Your task to perform on an android device: Clear the shopping cart on target. Search for "logitech g910" on target, select the first entry, add it to the cart, then select checkout. Image 0: 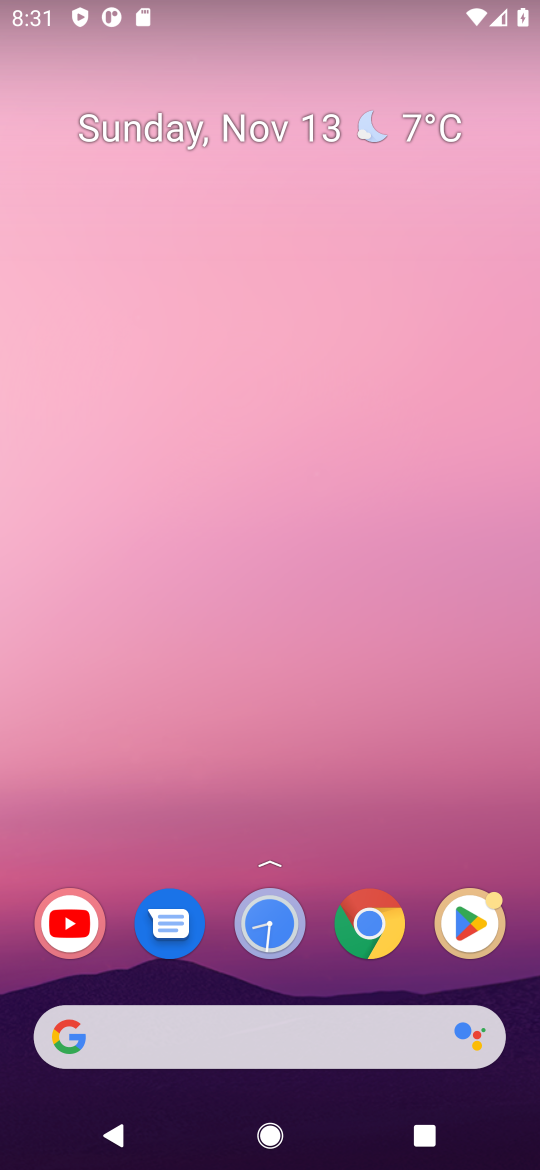
Step 0: click (364, 924)
Your task to perform on an android device: Clear the shopping cart on target. Search for "logitech g910" on target, select the first entry, add it to the cart, then select checkout. Image 1: 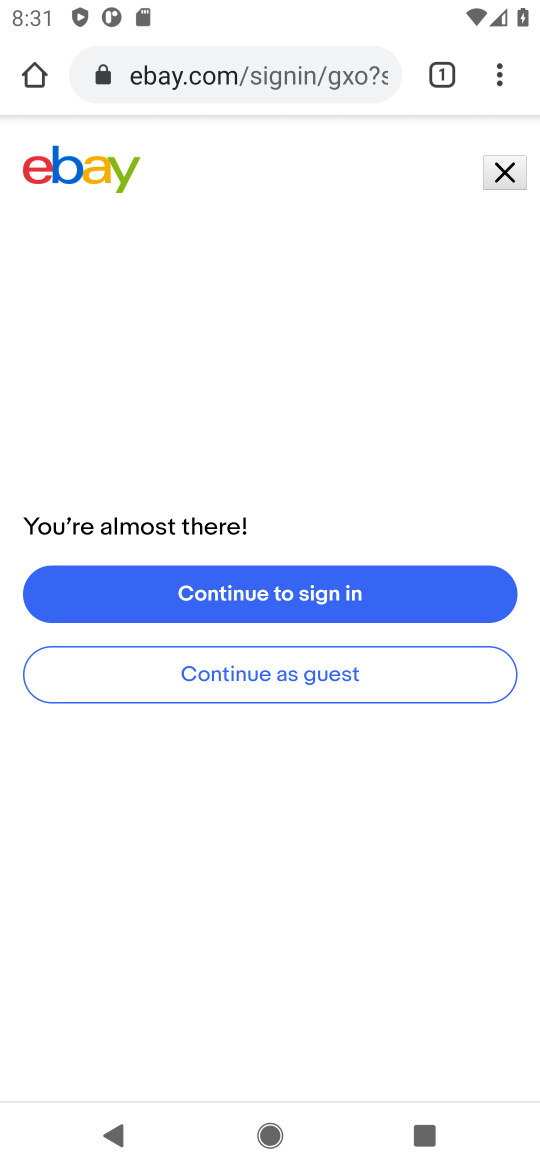
Step 1: click (163, 81)
Your task to perform on an android device: Clear the shopping cart on target. Search for "logitech g910" on target, select the first entry, add it to the cart, then select checkout. Image 2: 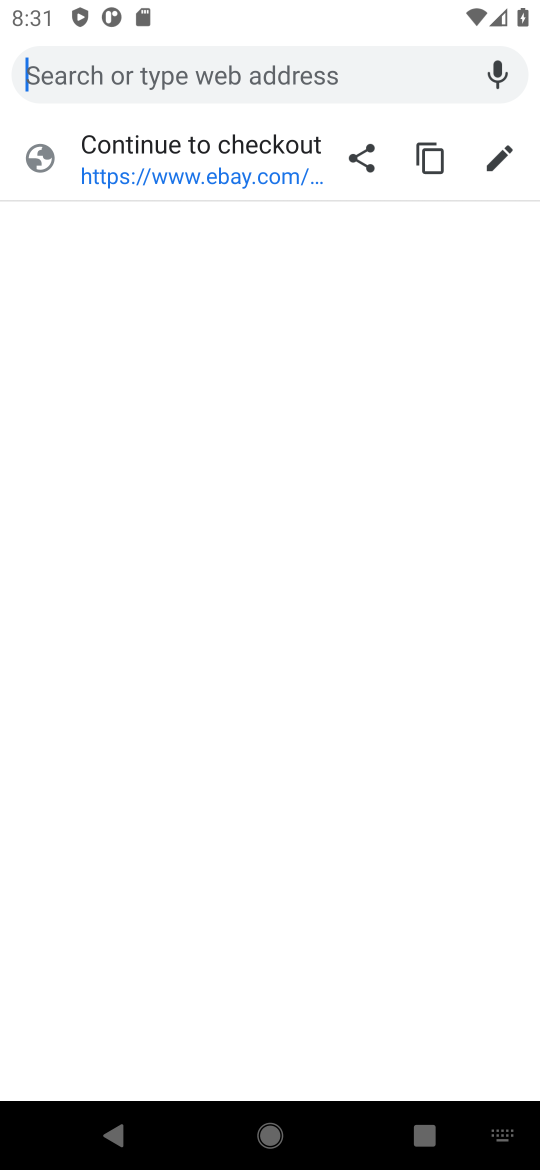
Step 2: type "target"
Your task to perform on an android device: Clear the shopping cart on target. Search for "logitech g910" on target, select the first entry, add it to the cart, then select checkout. Image 3: 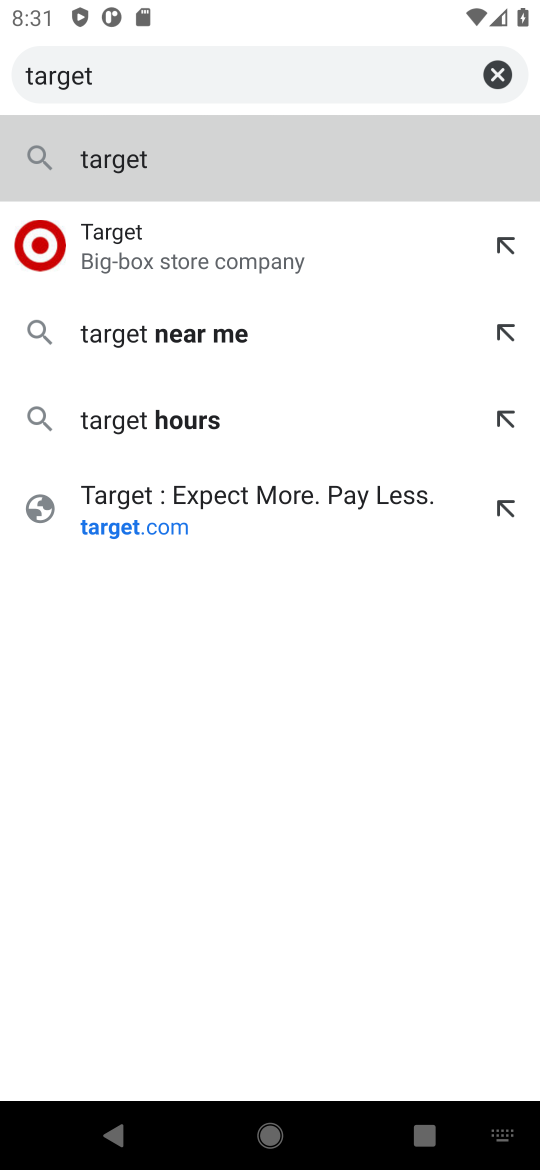
Step 3: press enter
Your task to perform on an android device: Clear the shopping cart on target. Search for "logitech g910" on target, select the first entry, add it to the cart, then select checkout. Image 4: 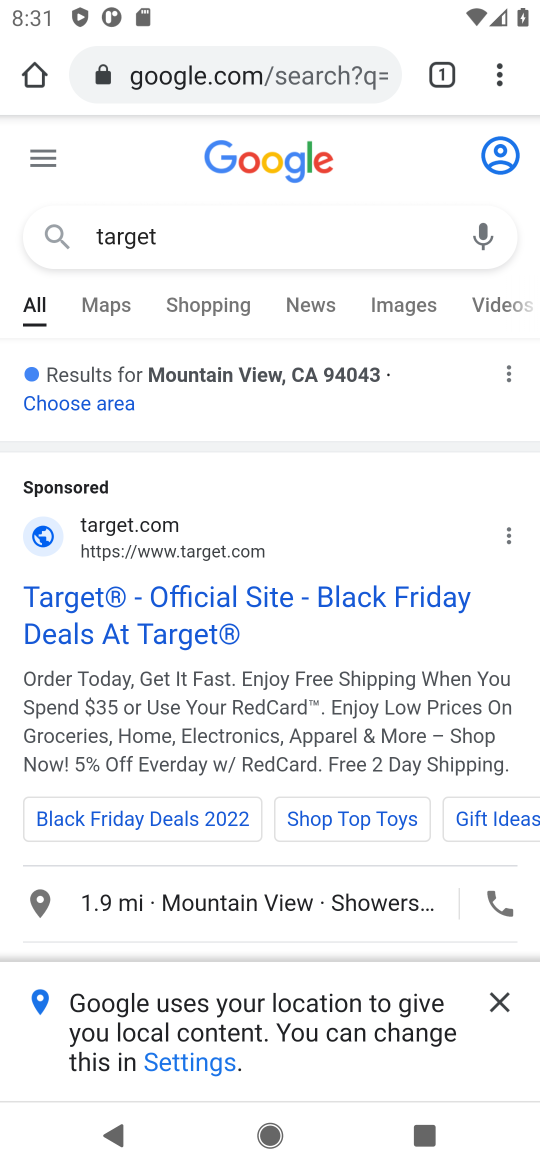
Step 4: click (163, 627)
Your task to perform on an android device: Clear the shopping cart on target. Search for "logitech g910" on target, select the first entry, add it to the cart, then select checkout. Image 5: 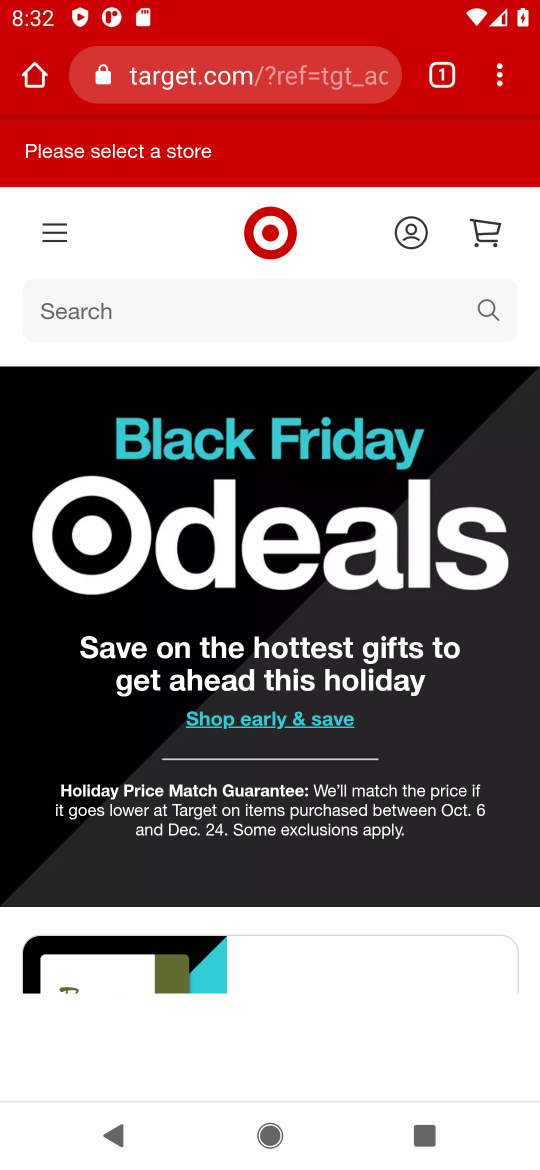
Step 5: click (234, 322)
Your task to perform on an android device: Clear the shopping cart on target. Search for "logitech g910" on target, select the first entry, add it to the cart, then select checkout. Image 6: 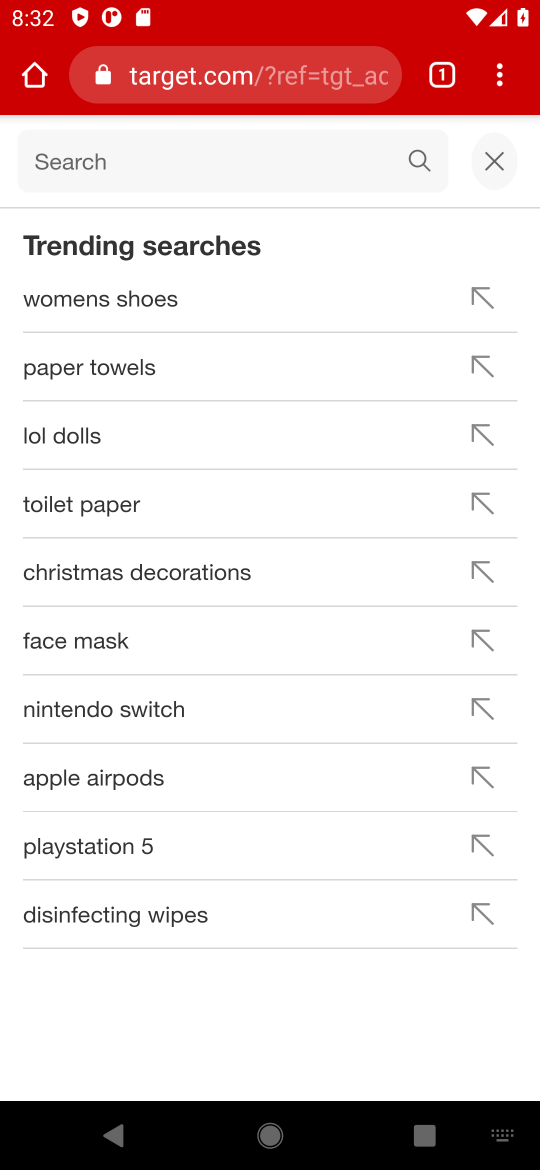
Step 6: type "logitech g910"
Your task to perform on an android device: Clear the shopping cart on target. Search for "logitech g910" on target, select the first entry, add it to the cart, then select checkout. Image 7: 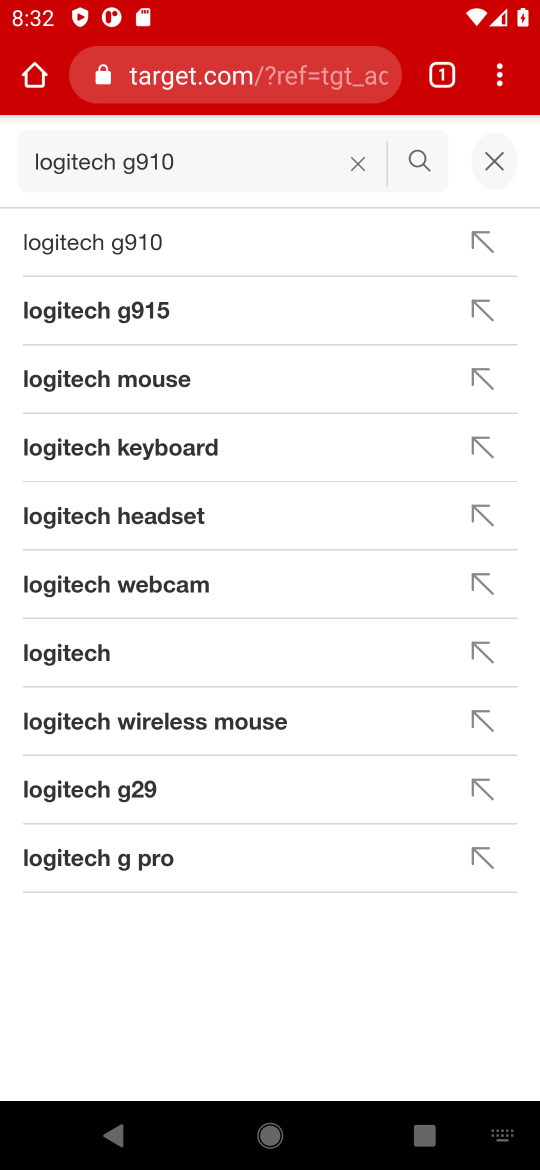
Step 7: press enter
Your task to perform on an android device: Clear the shopping cart on target. Search for "logitech g910" on target, select the first entry, add it to the cart, then select checkout. Image 8: 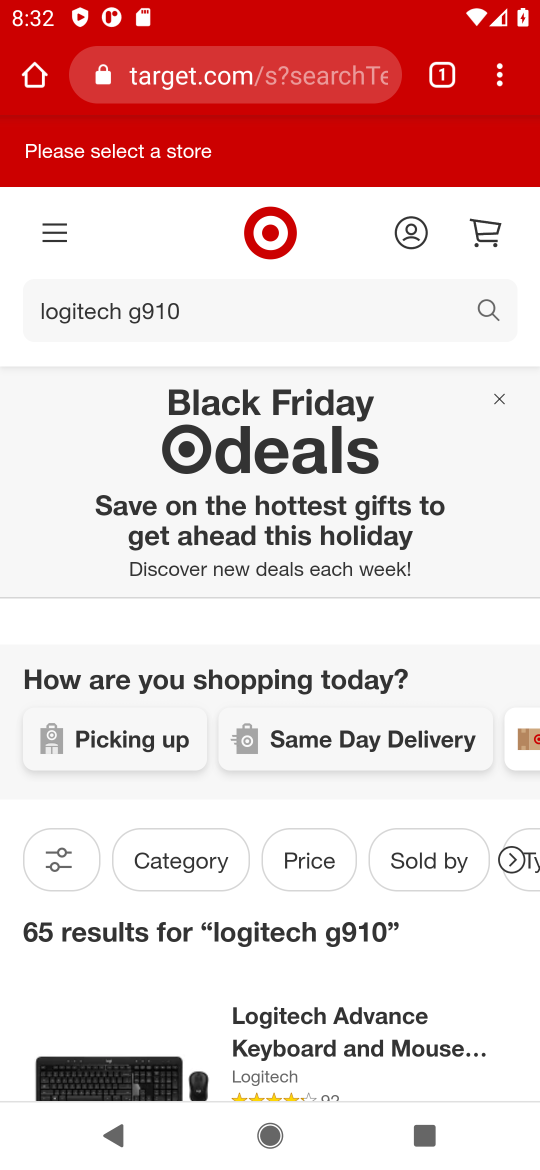
Step 8: drag from (350, 1037) to (367, 519)
Your task to perform on an android device: Clear the shopping cart on target. Search for "logitech g910" on target, select the first entry, add it to the cart, then select checkout. Image 9: 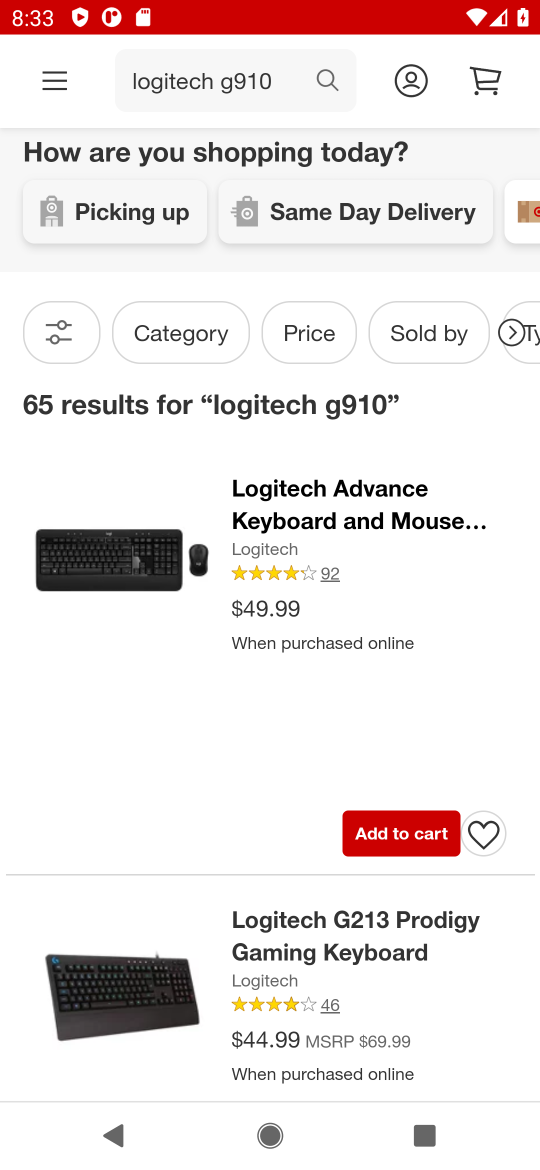
Step 9: click (118, 542)
Your task to perform on an android device: Clear the shopping cart on target. Search for "logitech g910" on target, select the first entry, add it to the cart, then select checkout. Image 10: 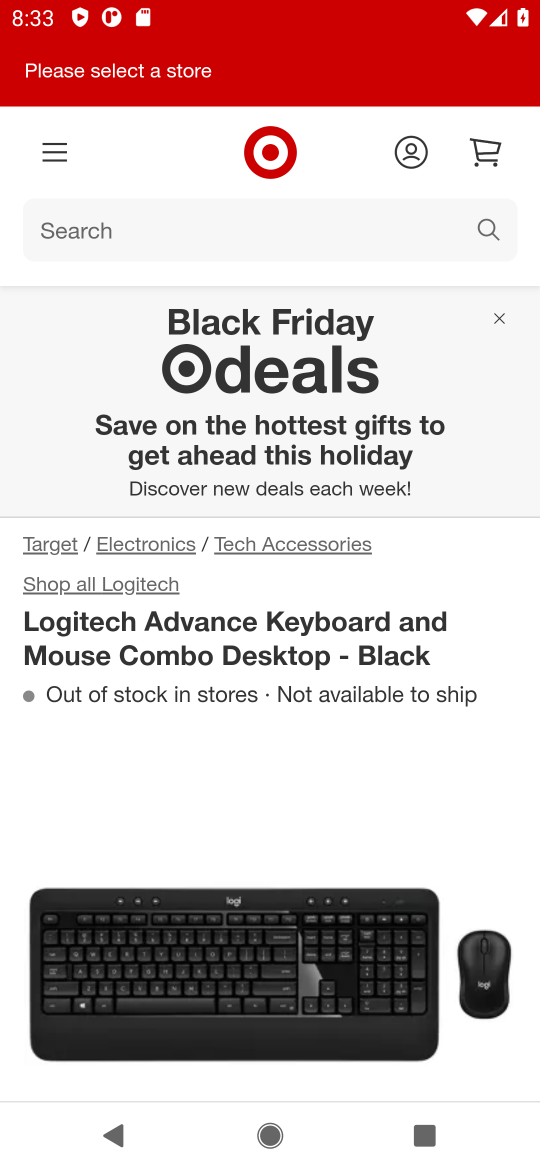
Step 10: drag from (347, 807) to (341, 430)
Your task to perform on an android device: Clear the shopping cart on target. Search for "logitech g910" on target, select the first entry, add it to the cart, then select checkout. Image 11: 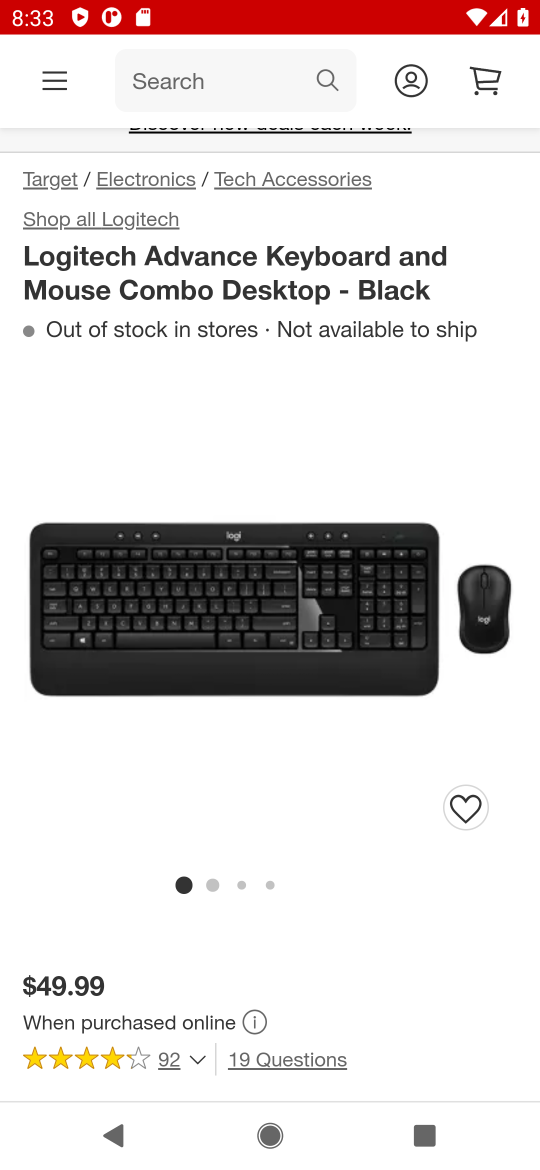
Step 11: drag from (379, 806) to (395, 446)
Your task to perform on an android device: Clear the shopping cart on target. Search for "logitech g910" on target, select the first entry, add it to the cart, then select checkout. Image 12: 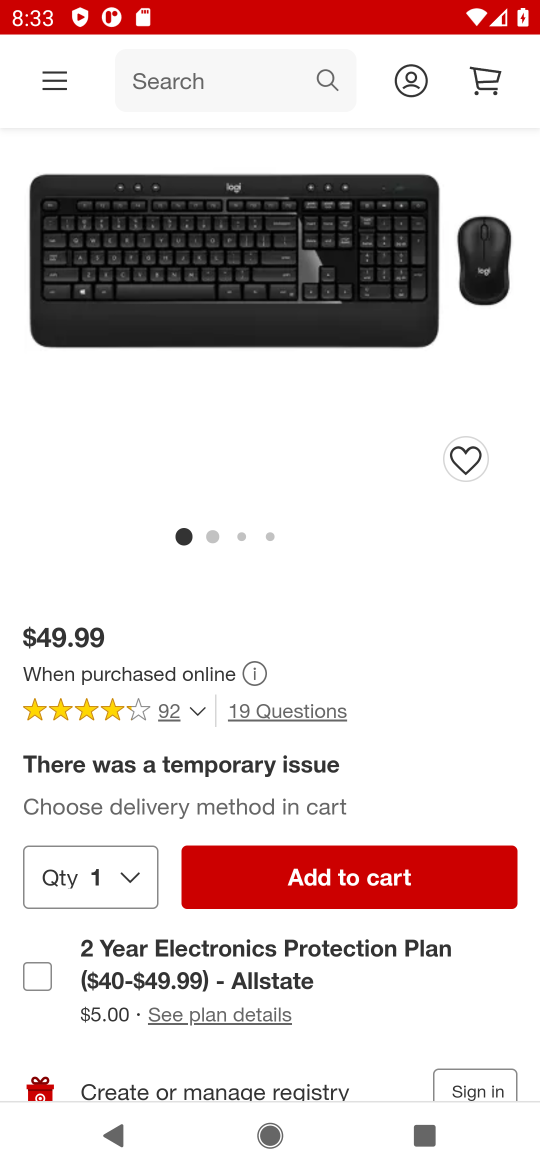
Step 12: click (383, 883)
Your task to perform on an android device: Clear the shopping cart on target. Search for "logitech g910" on target, select the first entry, add it to the cart, then select checkout. Image 13: 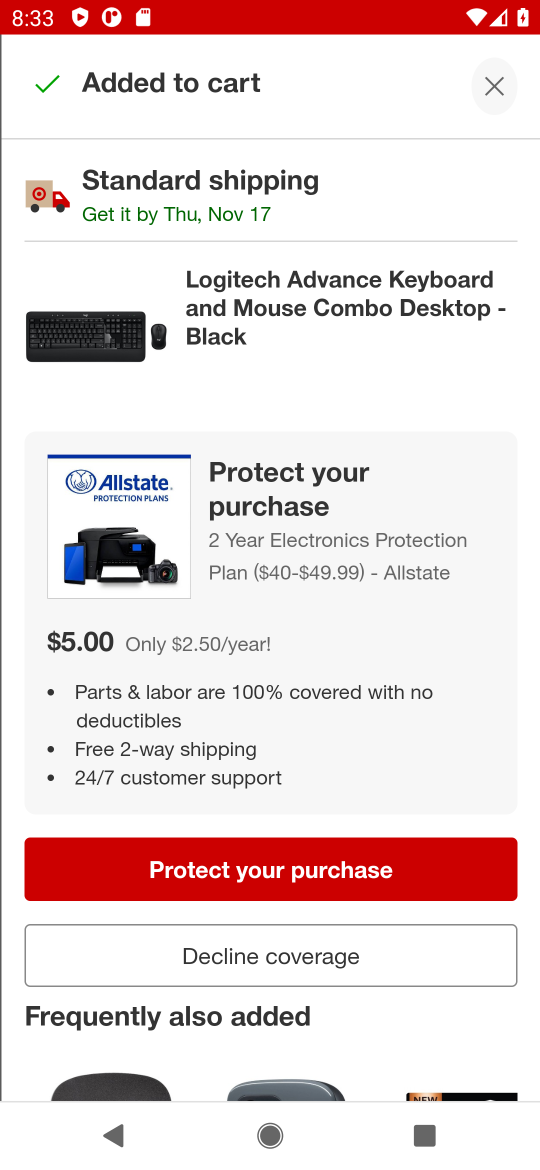
Step 13: click (285, 864)
Your task to perform on an android device: Clear the shopping cart on target. Search for "logitech g910" on target, select the first entry, add it to the cart, then select checkout. Image 14: 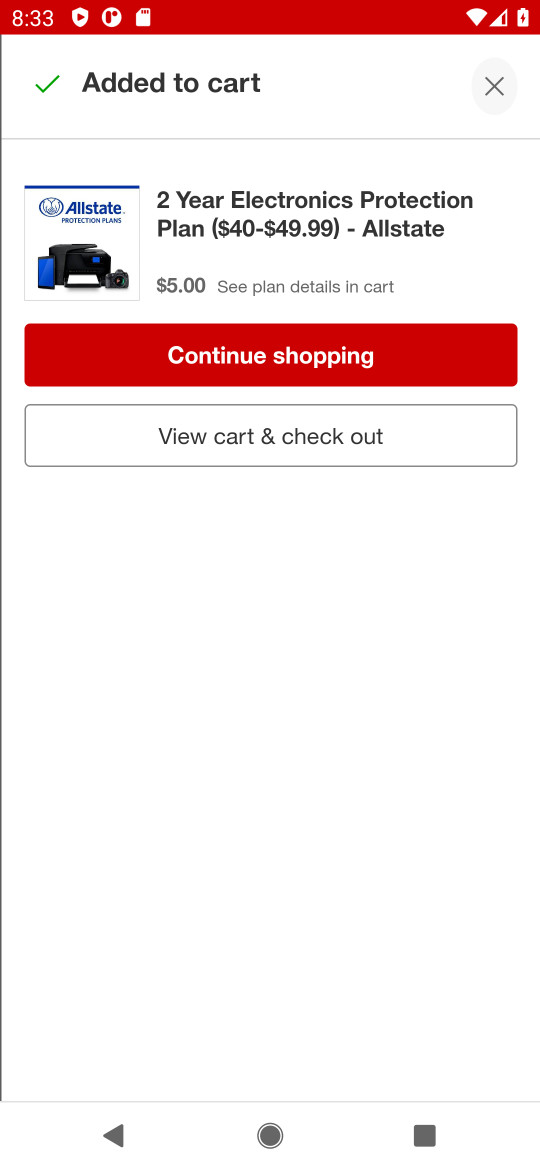
Step 14: click (231, 442)
Your task to perform on an android device: Clear the shopping cart on target. Search for "logitech g910" on target, select the first entry, add it to the cart, then select checkout. Image 15: 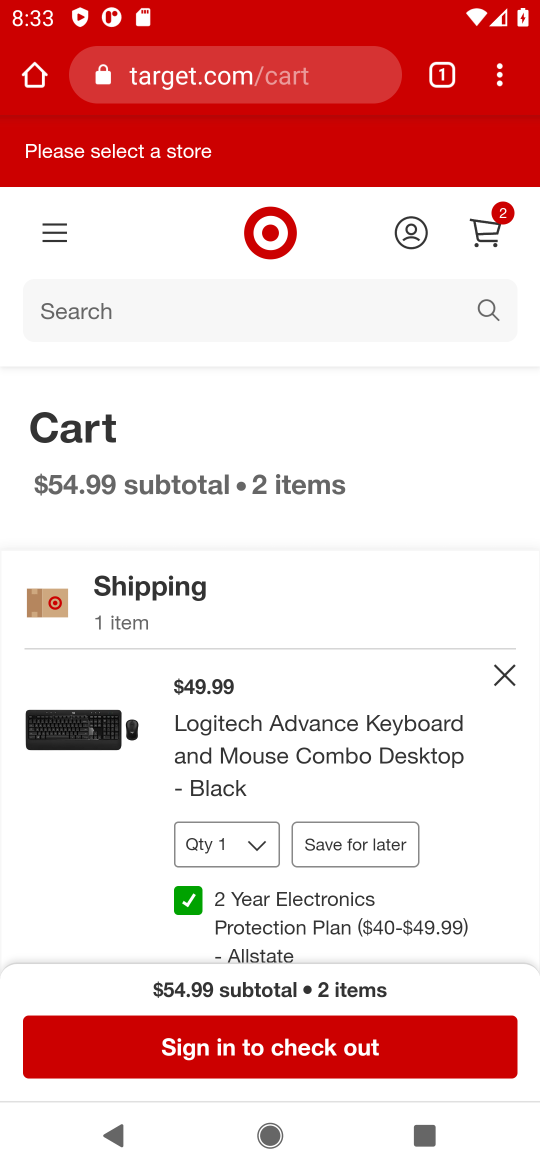
Step 15: click (367, 1048)
Your task to perform on an android device: Clear the shopping cart on target. Search for "logitech g910" on target, select the first entry, add it to the cart, then select checkout. Image 16: 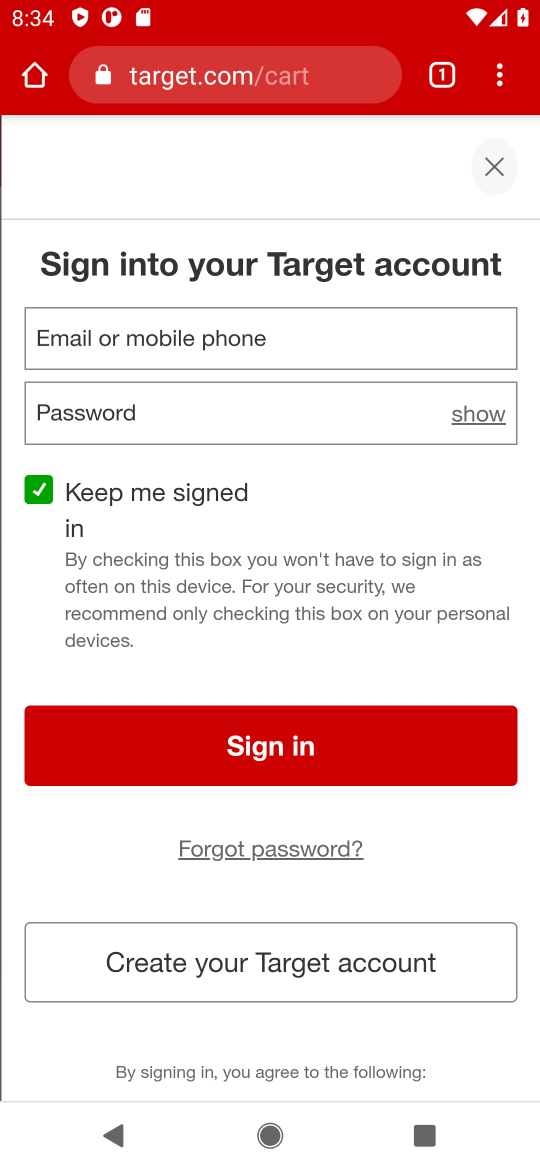
Step 16: task complete